Your task to perform on an android device: Show the shopping cart on ebay.com. Search for logitech g pro on ebay.com, select the first entry, add it to the cart, then select checkout. Image 0: 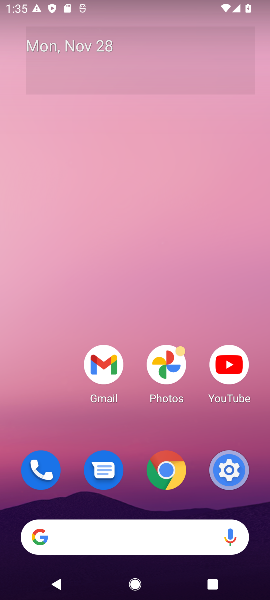
Step 0: click (164, 544)
Your task to perform on an android device: Show the shopping cart on ebay.com. Search for logitech g pro on ebay.com, select the first entry, add it to the cart, then select checkout. Image 1: 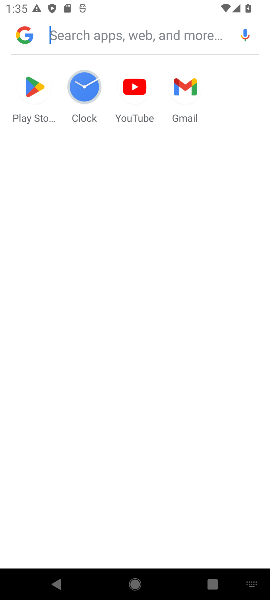
Step 1: type "ebay.com"
Your task to perform on an android device: Show the shopping cart on ebay.com. Search for logitech g pro on ebay.com, select the first entry, add it to the cart, then select checkout. Image 2: 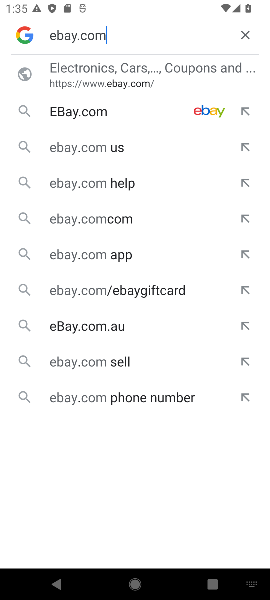
Step 2: click (120, 96)
Your task to perform on an android device: Show the shopping cart on ebay.com. Search for logitech g pro on ebay.com, select the first entry, add it to the cart, then select checkout. Image 3: 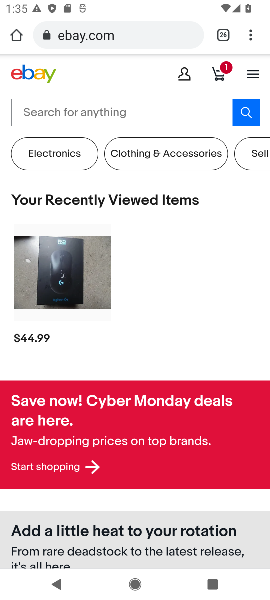
Step 3: click (124, 109)
Your task to perform on an android device: Show the shopping cart on ebay.com. Search for logitech g pro on ebay.com, select the first entry, add it to the cart, then select checkout. Image 4: 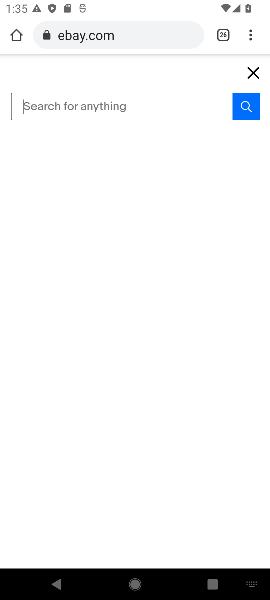
Step 4: type "logitech gpro"
Your task to perform on an android device: Show the shopping cart on ebay.com. Search for logitech g pro on ebay.com, select the first entry, add it to the cart, then select checkout. Image 5: 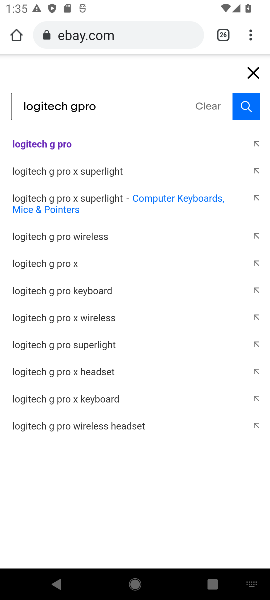
Step 5: click (60, 139)
Your task to perform on an android device: Show the shopping cart on ebay.com. Search for logitech g pro on ebay.com, select the first entry, add it to the cart, then select checkout. Image 6: 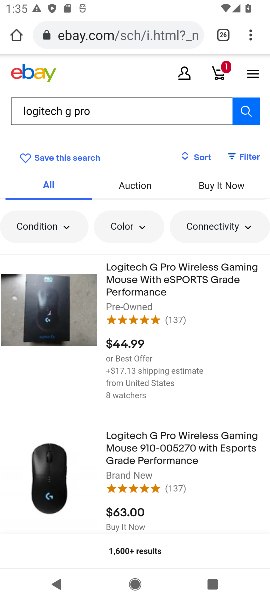
Step 6: click (159, 280)
Your task to perform on an android device: Show the shopping cart on ebay.com. Search for logitech g pro on ebay.com, select the first entry, add it to the cart, then select checkout. Image 7: 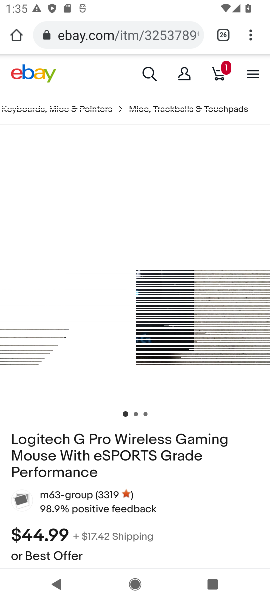
Step 7: drag from (170, 487) to (160, 141)
Your task to perform on an android device: Show the shopping cart on ebay.com. Search for logitech g pro on ebay.com, select the first entry, add it to the cart, then select checkout. Image 8: 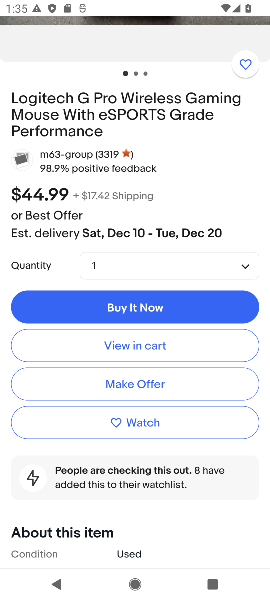
Step 8: click (157, 356)
Your task to perform on an android device: Show the shopping cart on ebay.com. Search for logitech g pro on ebay.com, select the first entry, add it to the cart, then select checkout. Image 9: 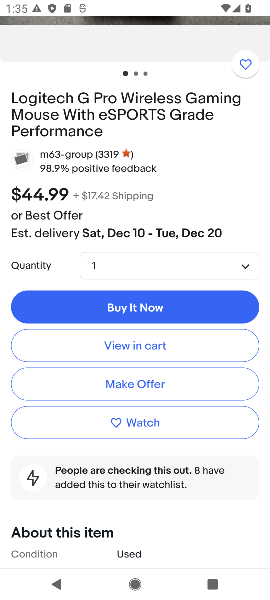
Step 9: click (157, 356)
Your task to perform on an android device: Show the shopping cart on ebay.com. Search for logitech g pro on ebay.com, select the first entry, add it to the cart, then select checkout. Image 10: 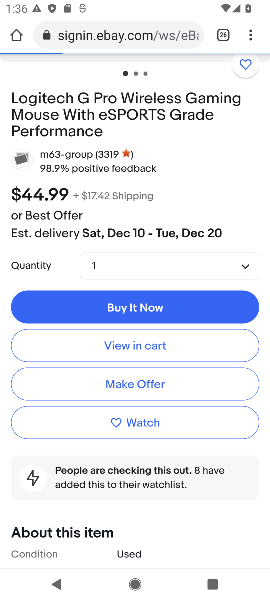
Step 10: task complete